Your task to perform on an android device: turn off translation in the chrome app Image 0: 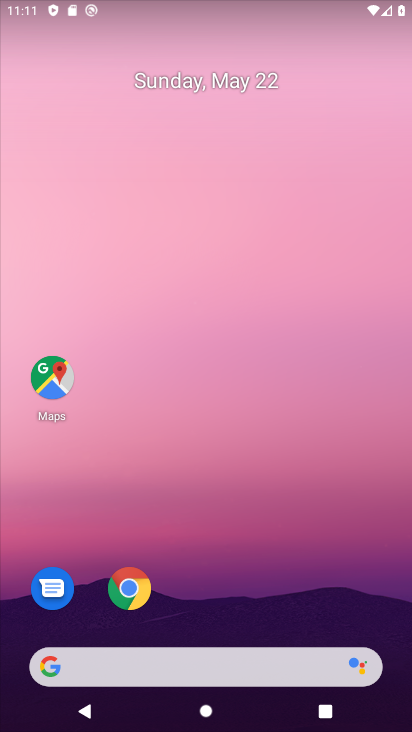
Step 0: click (144, 594)
Your task to perform on an android device: turn off translation in the chrome app Image 1: 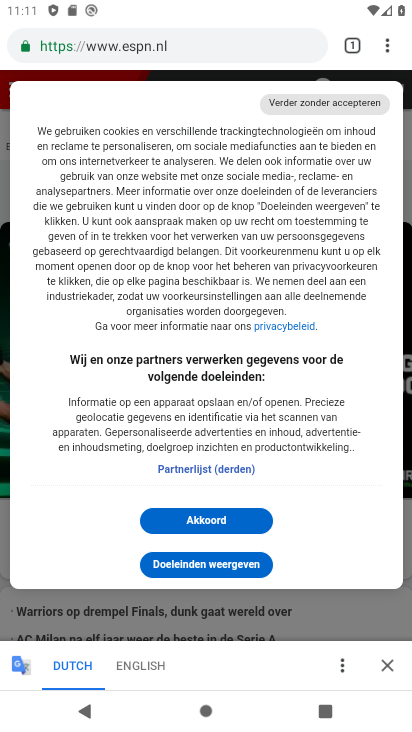
Step 1: click (197, 517)
Your task to perform on an android device: turn off translation in the chrome app Image 2: 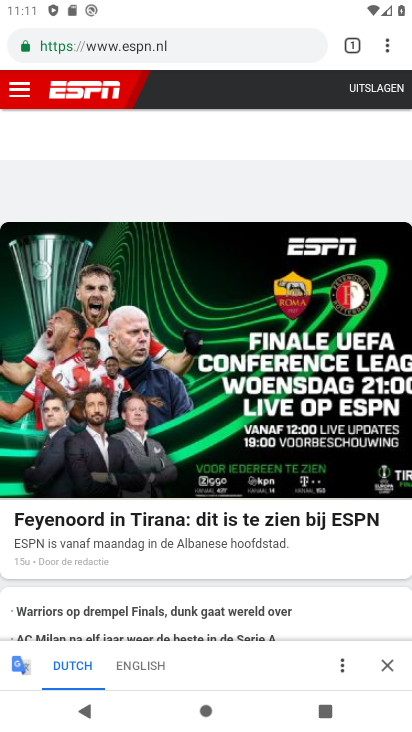
Step 2: click (381, 41)
Your task to perform on an android device: turn off translation in the chrome app Image 3: 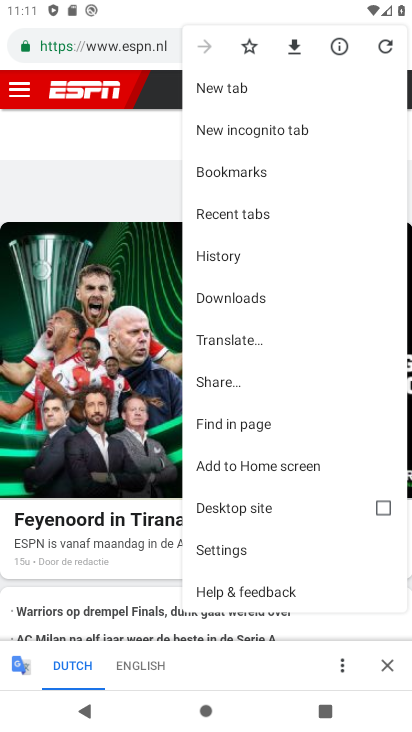
Step 3: click (230, 547)
Your task to perform on an android device: turn off translation in the chrome app Image 4: 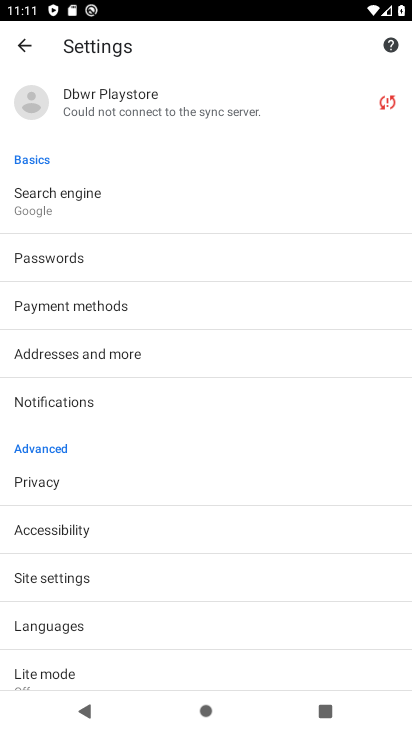
Step 4: click (36, 639)
Your task to perform on an android device: turn off translation in the chrome app Image 5: 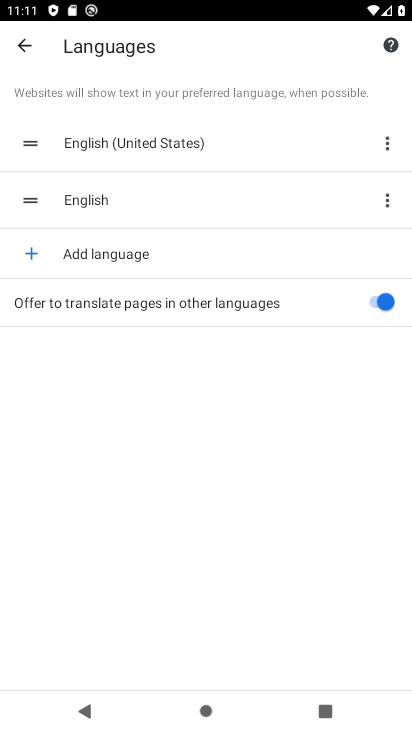
Step 5: click (379, 318)
Your task to perform on an android device: turn off translation in the chrome app Image 6: 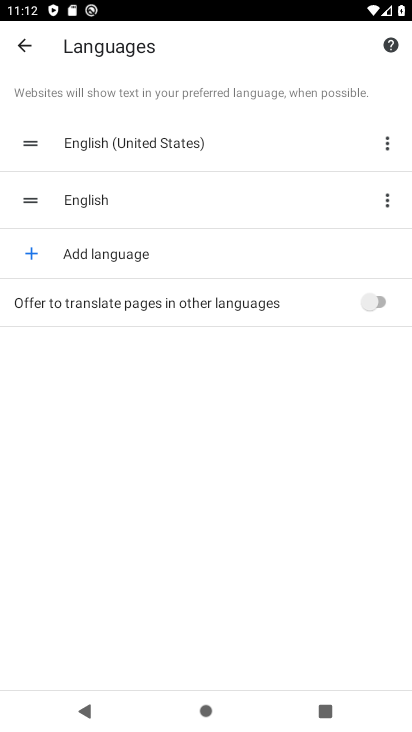
Step 6: task complete